Your task to perform on an android device: delete location history Image 0: 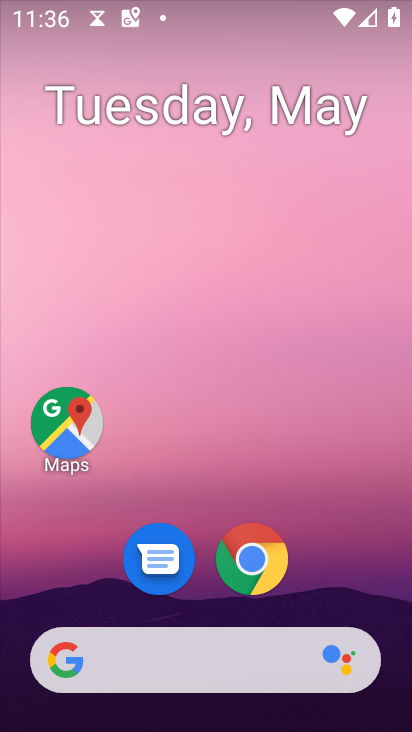
Step 0: drag from (354, 566) to (354, 106)
Your task to perform on an android device: delete location history Image 1: 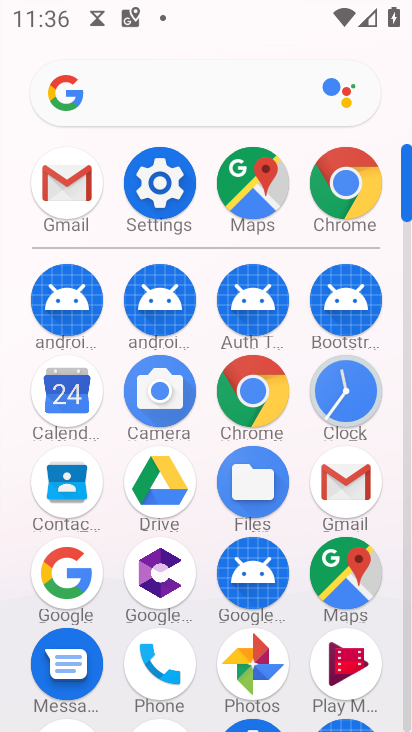
Step 1: click (251, 169)
Your task to perform on an android device: delete location history Image 2: 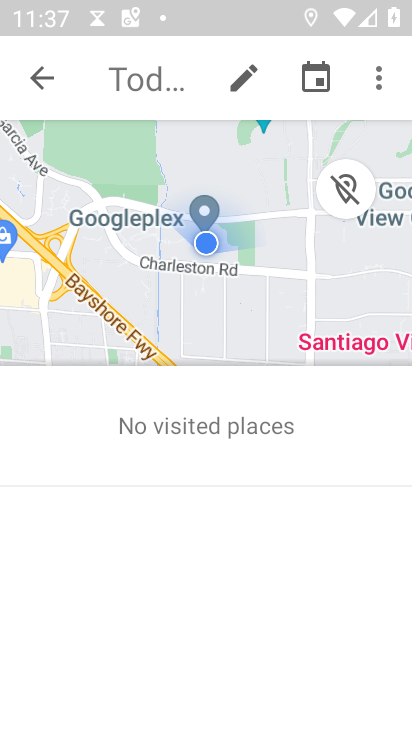
Step 2: click (383, 88)
Your task to perform on an android device: delete location history Image 3: 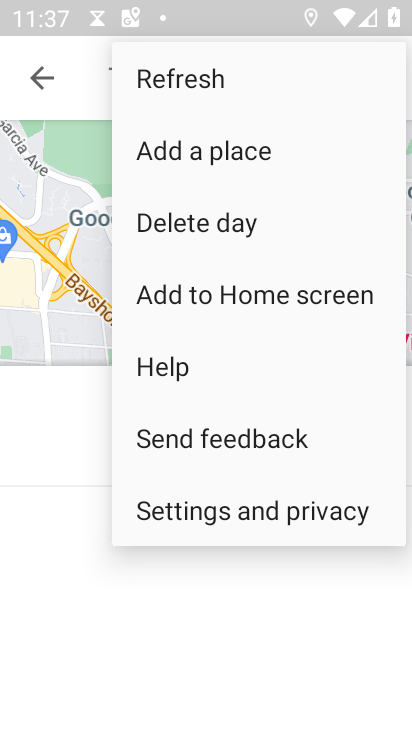
Step 3: click (250, 521)
Your task to perform on an android device: delete location history Image 4: 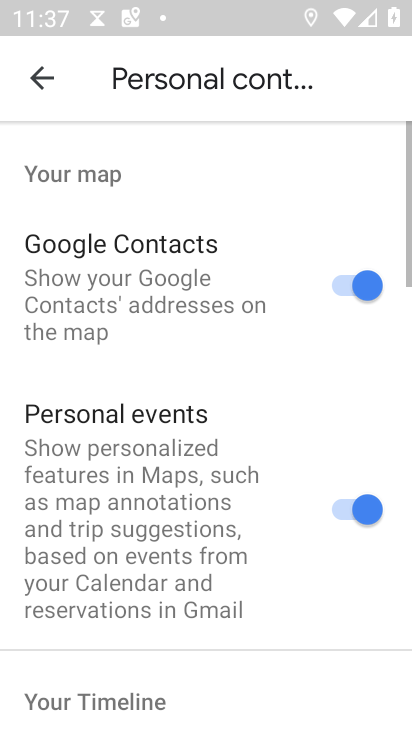
Step 4: drag from (122, 651) to (147, 116)
Your task to perform on an android device: delete location history Image 5: 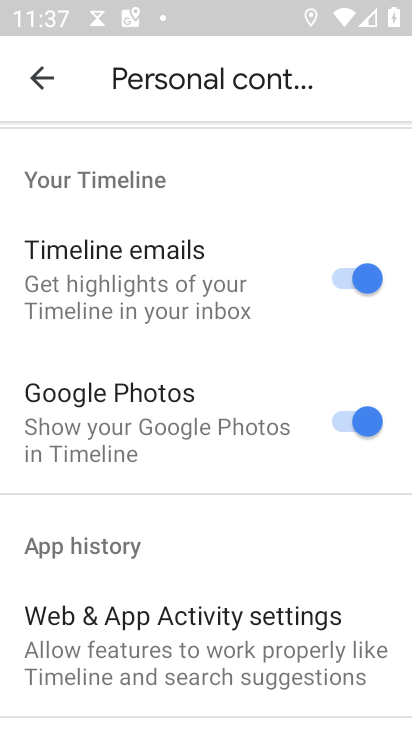
Step 5: drag from (153, 607) to (217, 107)
Your task to perform on an android device: delete location history Image 6: 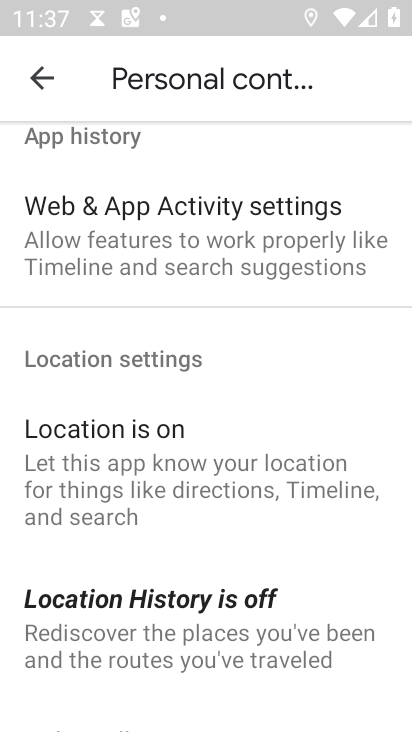
Step 6: drag from (184, 595) to (157, 174)
Your task to perform on an android device: delete location history Image 7: 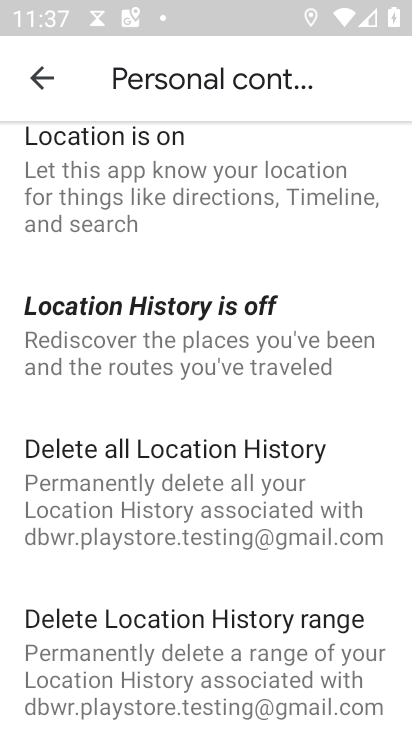
Step 7: click (169, 509)
Your task to perform on an android device: delete location history Image 8: 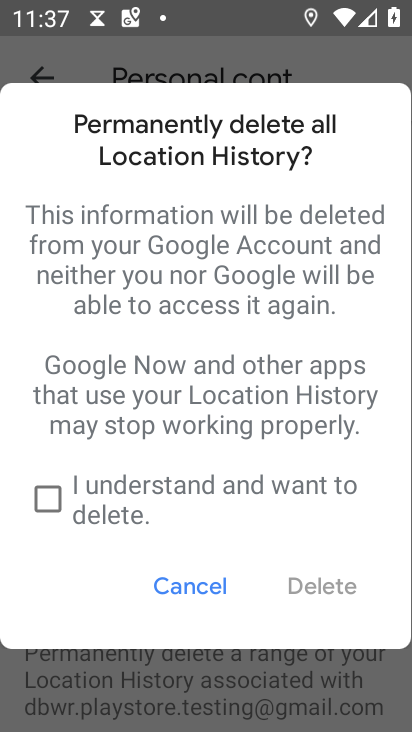
Step 8: click (56, 511)
Your task to perform on an android device: delete location history Image 9: 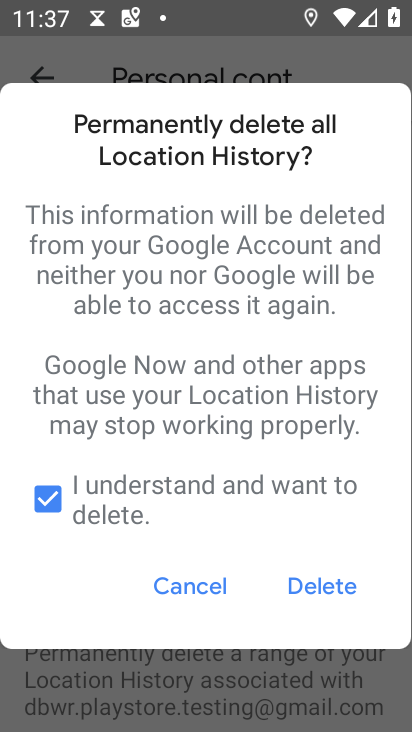
Step 9: click (314, 588)
Your task to perform on an android device: delete location history Image 10: 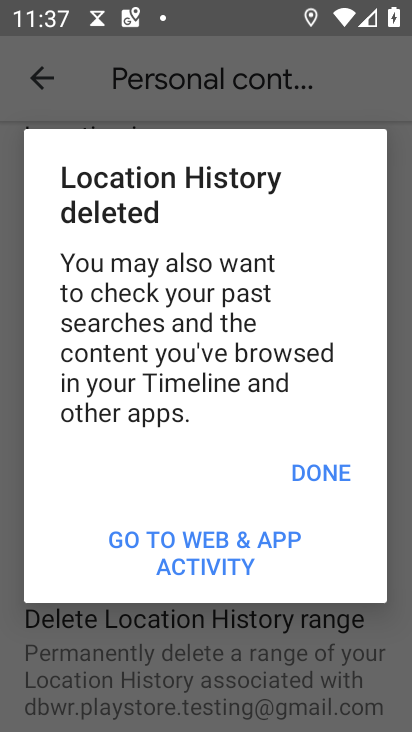
Step 10: task complete